Your task to perform on an android device: Go to notification settings Image 0: 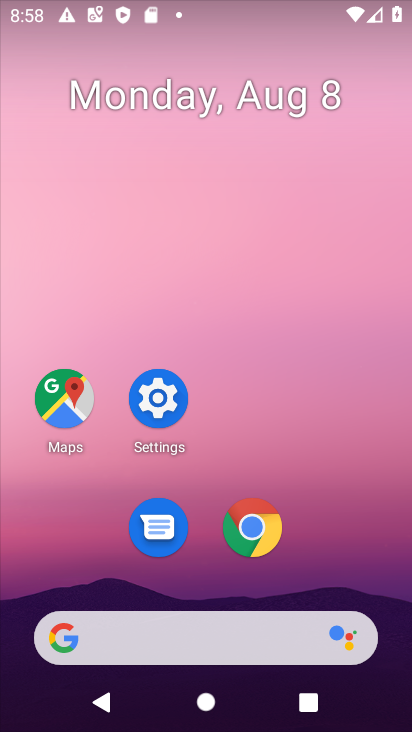
Step 0: drag from (251, 410) to (266, 140)
Your task to perform on an android device: Go to notification settings Image 1: 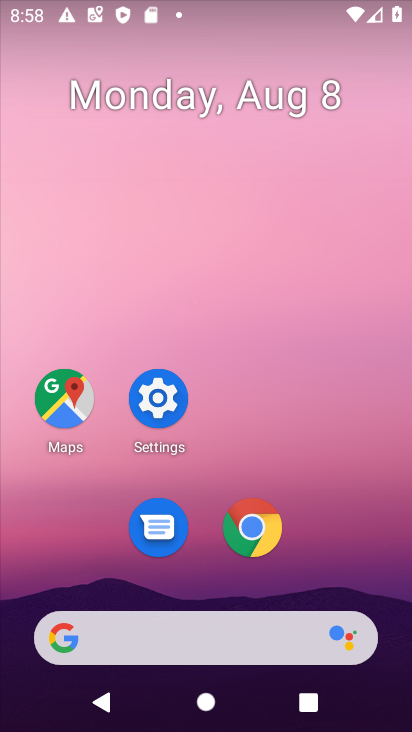
Step 1: click (172, 394)
Your task to perform on an android device: Go to notification settings Image 2: 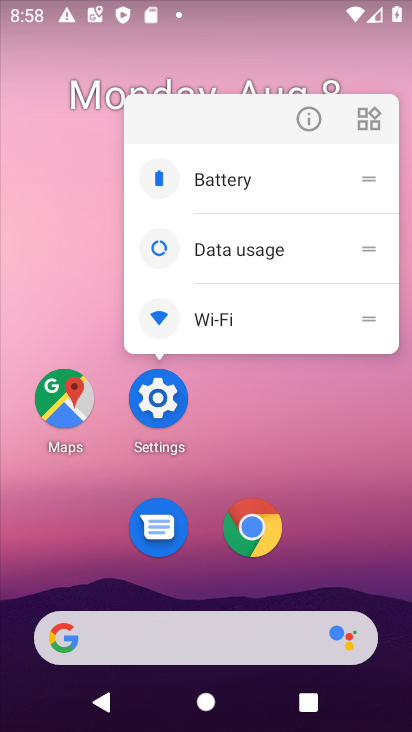
Step 2: click (172, 391)
Your task to perform on an android device: Go to notification settings Image 3: 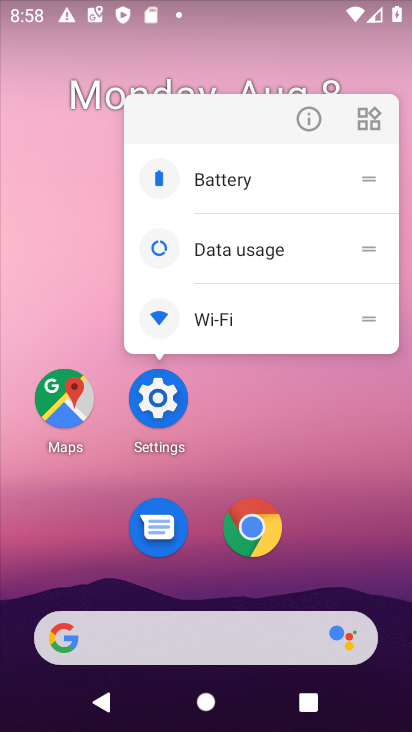
Step 3: click (172, 391)
Your task to perform on an android device: Go to notification settings Image 4: 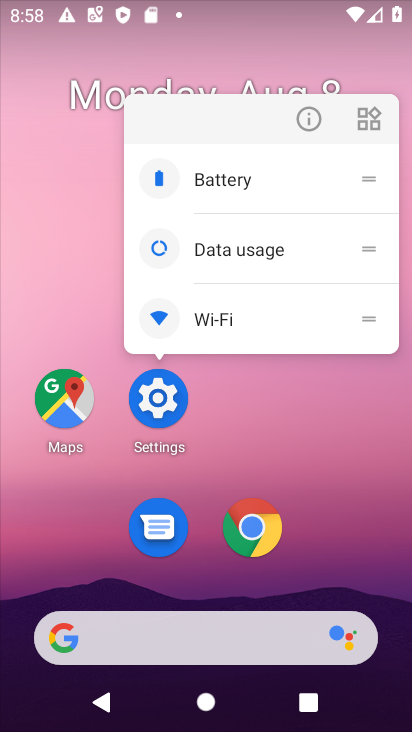
Step 4: click (154, 386)
Your task to perform on an android device: Go to notification settings Image 5: 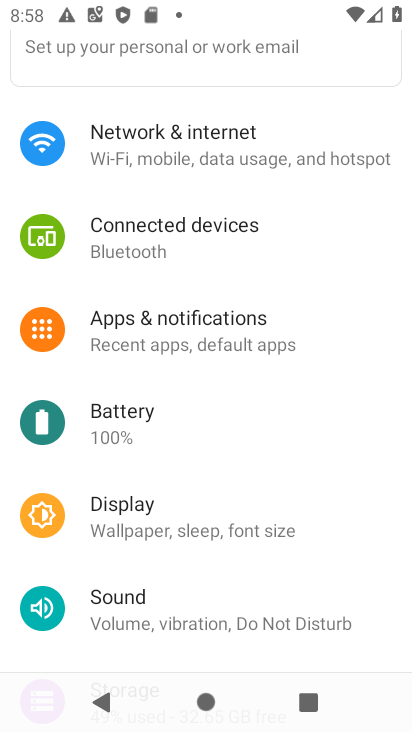
Step 5: click (228, 332)
Your task to perform on an android device: Go to notification settings Image 6: 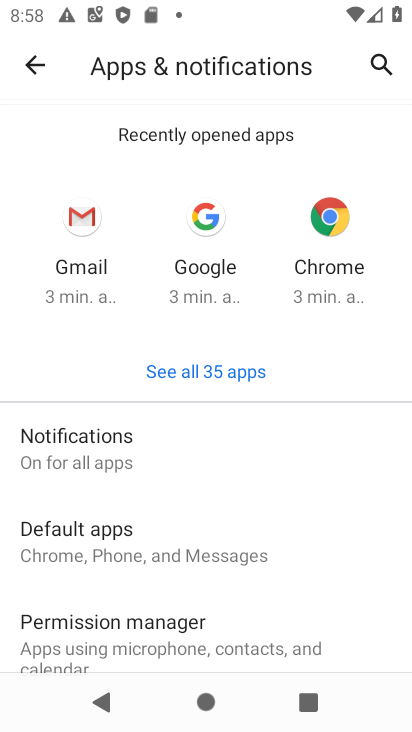
Step 6: task complete